Your task to perform on an android device: open device folders in google photos Image 0: 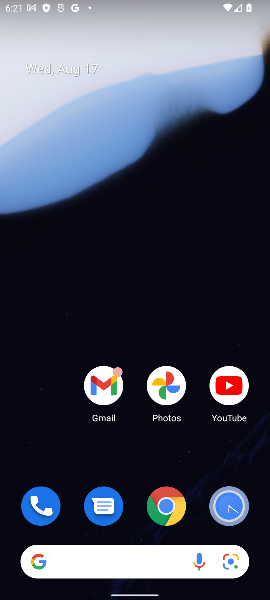
Step 0: drag from (139, 458) to (176, 56)
Your task to perform on an android device: open device folders in google photos Image 1: 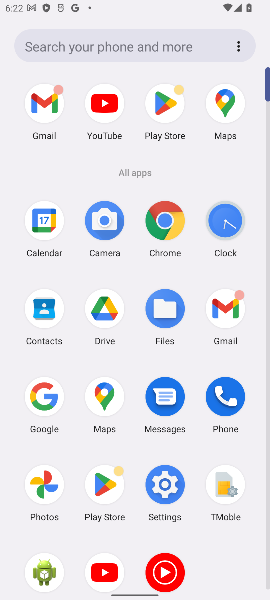
Step 1: click (44, 479)
Your task to perform on an android device: open device folders in google photos Image 2: 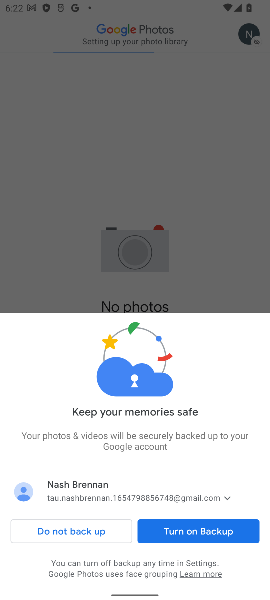
Step 2: click (212, 533)
Your task to perform on an android device: open device folders in google photos Image 3: 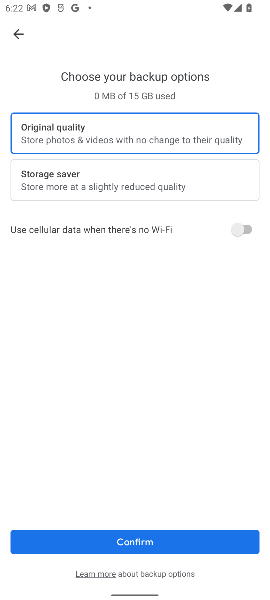
Step 3: click (211, 543)
Your task to perform on an android device: open device folders in google photos Image 4: 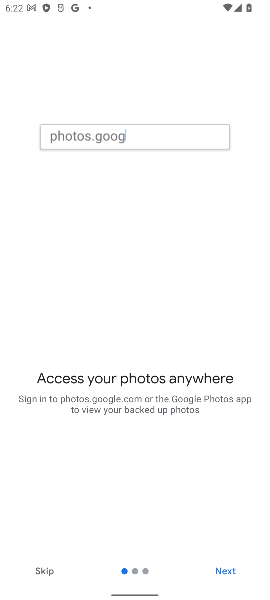
Step 4: click (218, 578)
Your task to perform on an android device: open device folders in google photos Image 5: 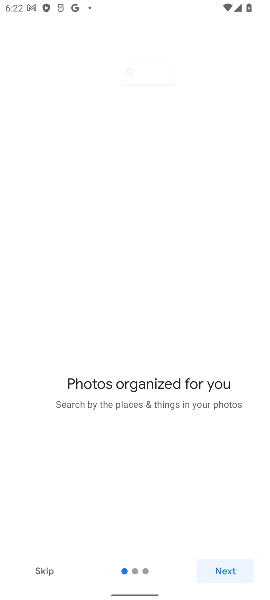
Step 5: click (219, 572)
Your task to perform on an android device: open device folders in google photos Image 6: 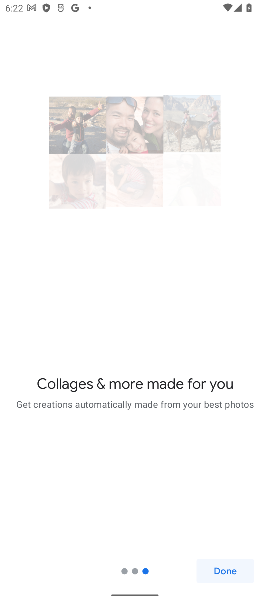
Step 6: click (219, 572)
Your task to perform on an android device: open device folders in google photos Image 7: 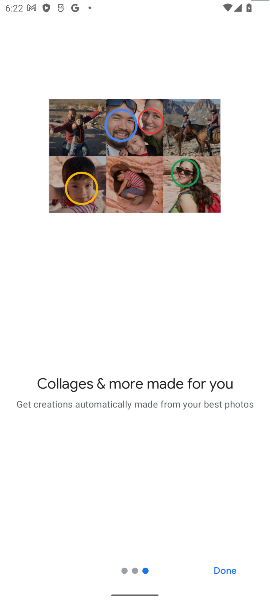
Step 7: click (219, 572)
Your task to perform on an android device: open device folders in google photos Image 8: 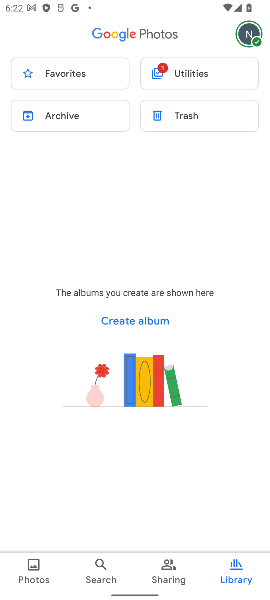
Step 8: click (240, 75)
Your task to perform on an android device: open device folders in google photos Image 9: 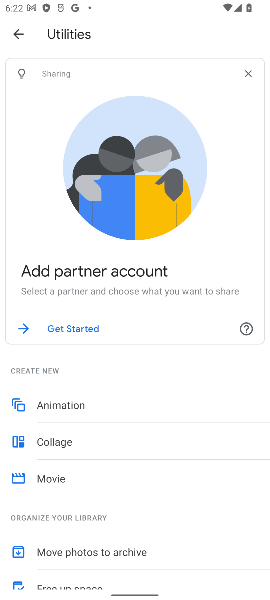
Step 9: drag from (182, 496) to (269, 85)
Your task to perform on an android device: open device folders in google photos Image 10: 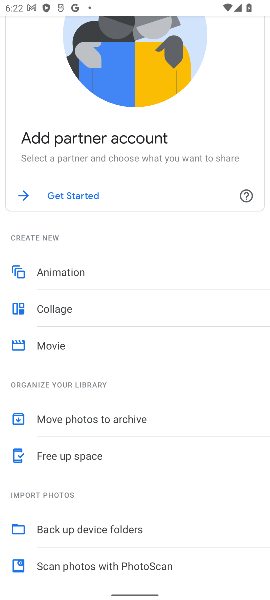
Step 10: click (118, 531)
Your task to perform on an android device: open device folders in google photos Image 11: 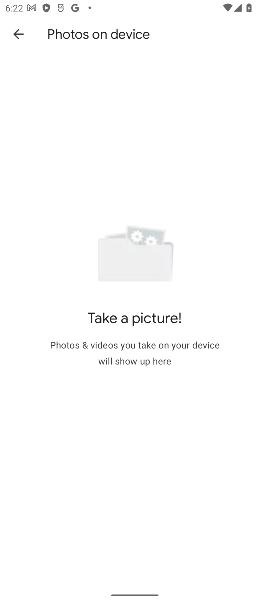
Step 11: task complete